Your task to perform on an android device: open app "Google News" Image 0: 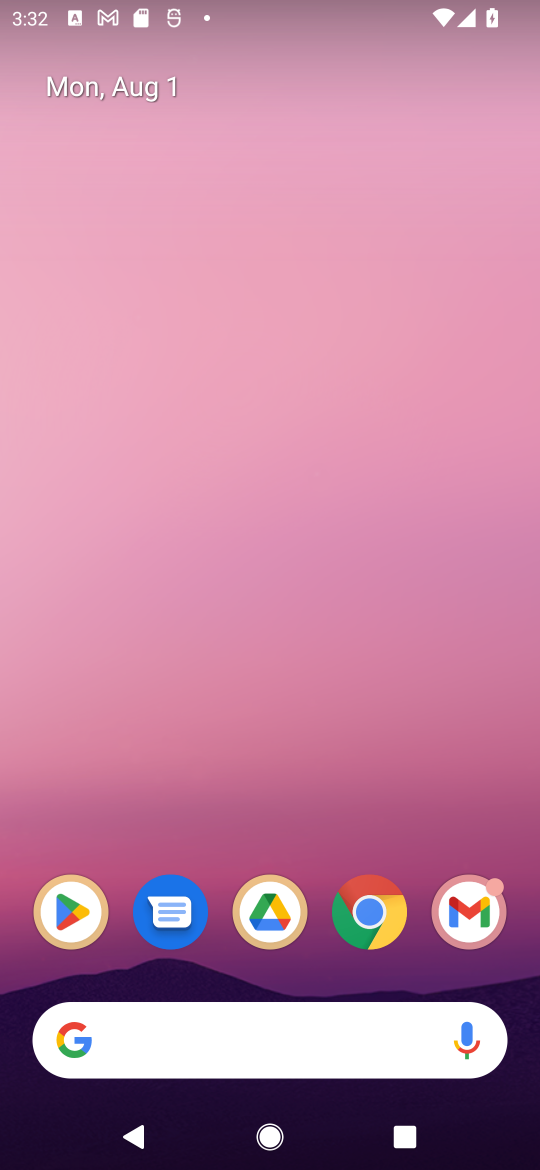
Step 0: click (79, 926)
Your task to perform on an android device: open app "Google News" Image 1: 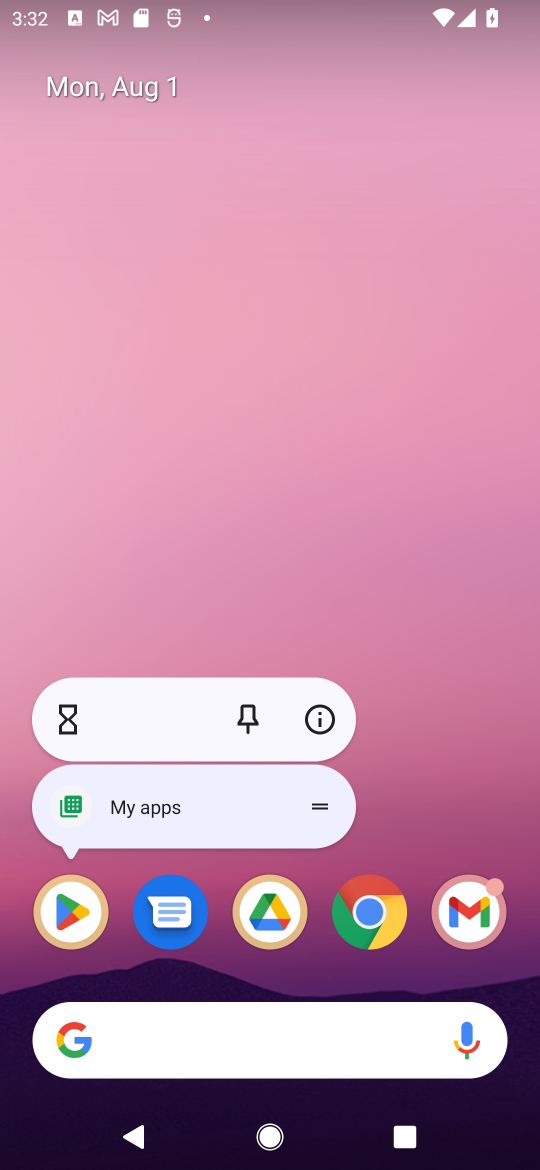
Step 1: click (59, 900)
Your task to perform on an android device: open app "Google News" Image 2: 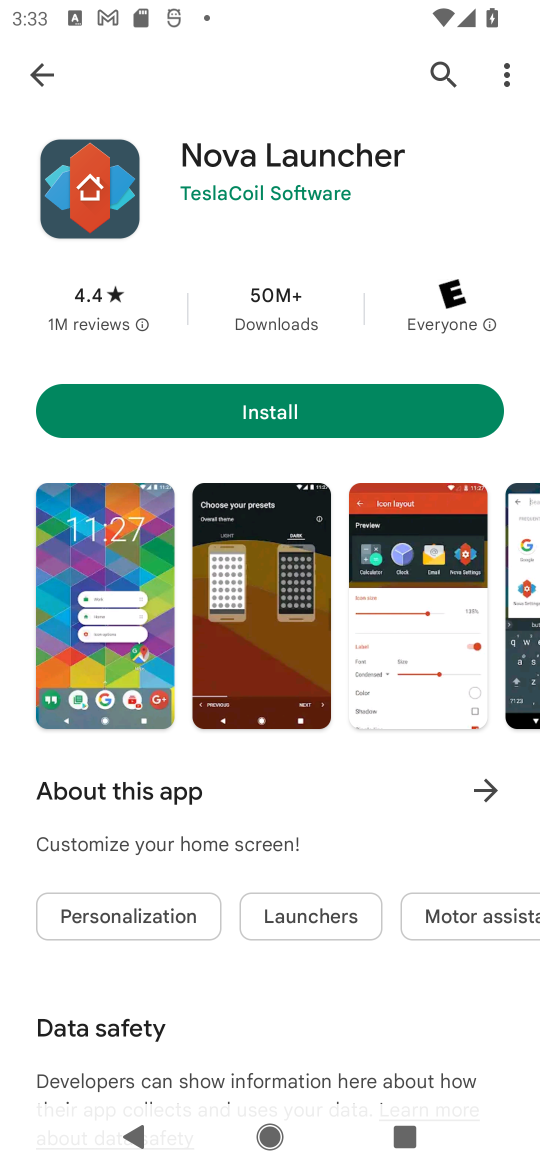
Step 2: click (460, 90)
Your task to perform on an android device: open app "Google News" Image 3: 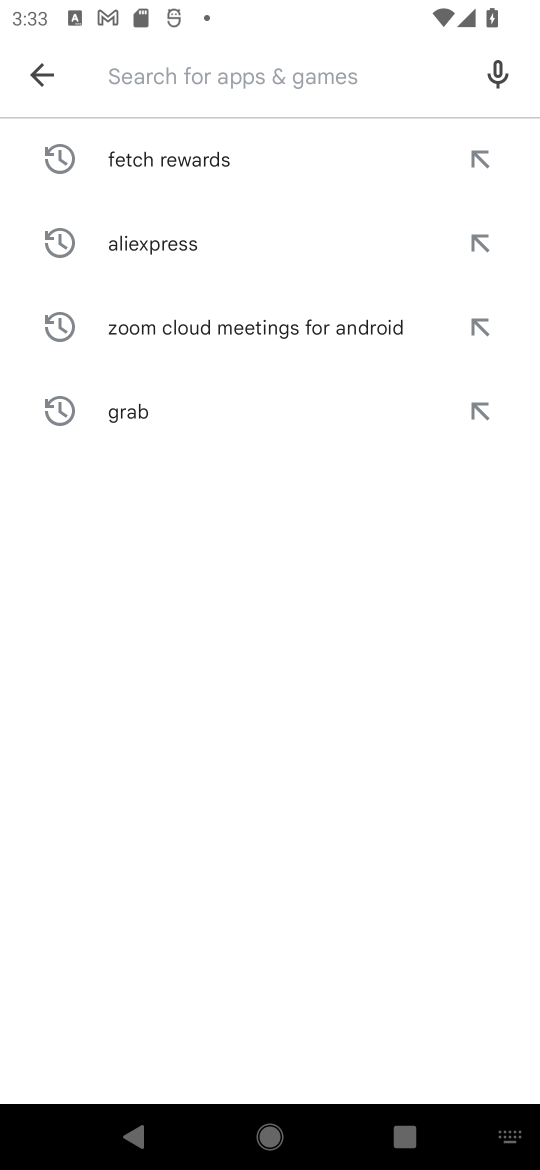
Step 3: click (346, 86)
Your task to perform on an android device: open app "Google News" Image 4: 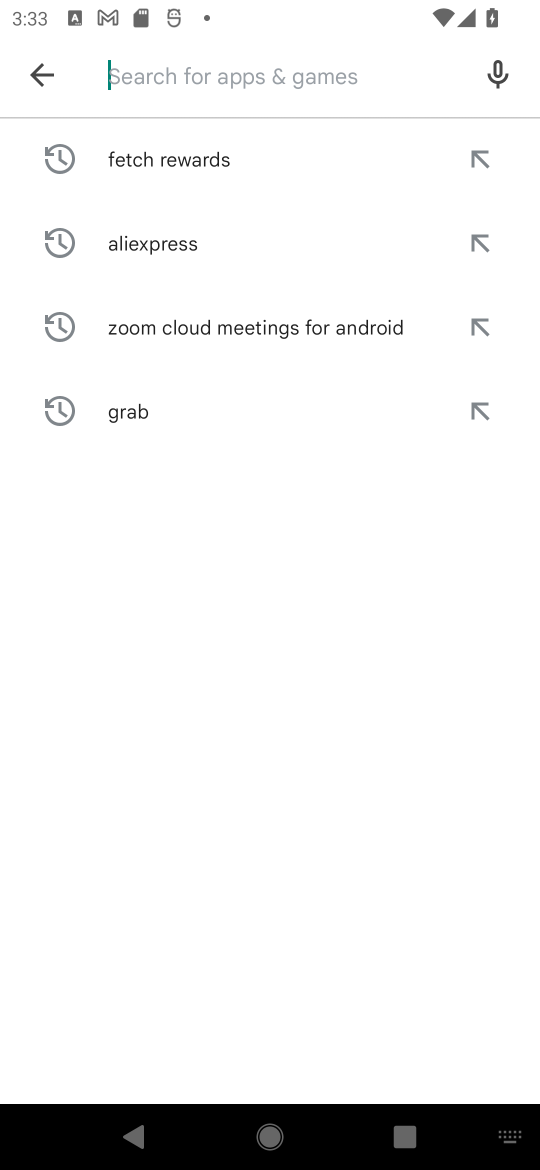
Step 4: type "Google News"
Your task to perform on an android device: open app "Google News" Image 5: 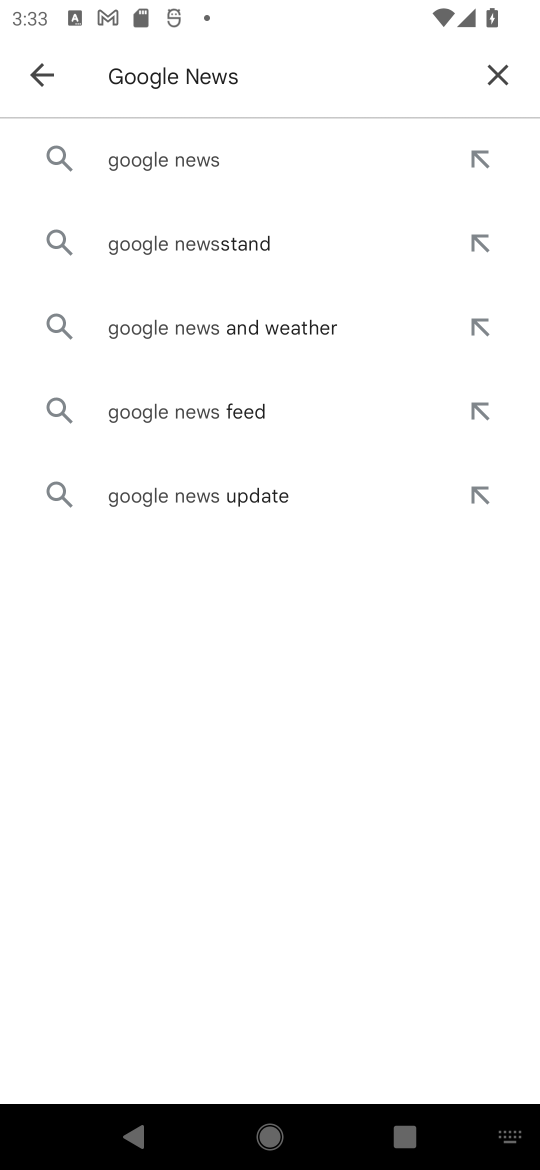
Step 5: click (121, 163)
Your task to perform on an android device: open app "Google News" Image 6: 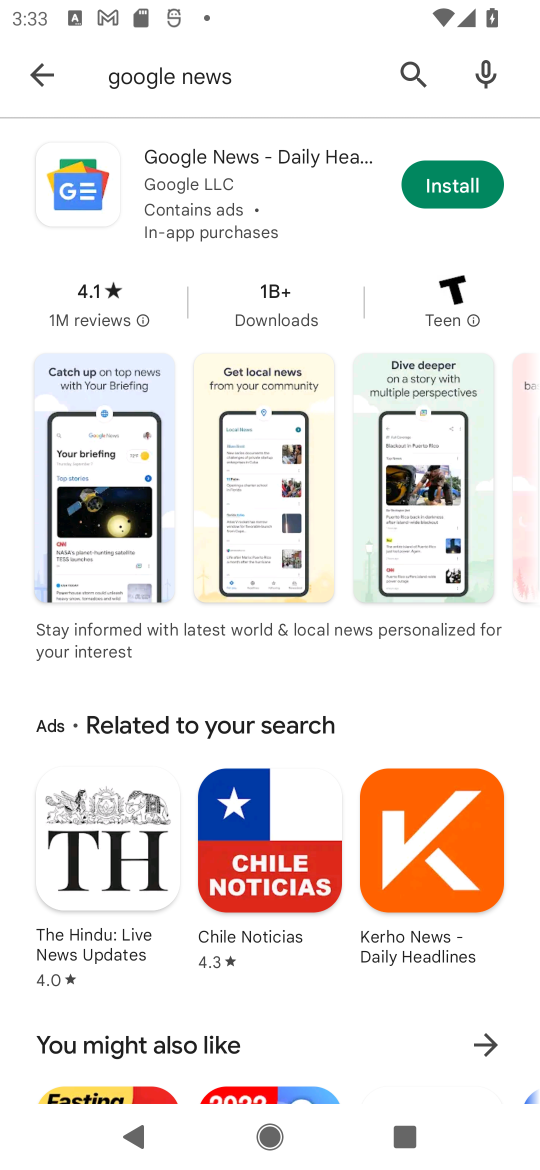
Step 6: task complete